Your task to perform on an android device: Turn on the flashlight Image 0: 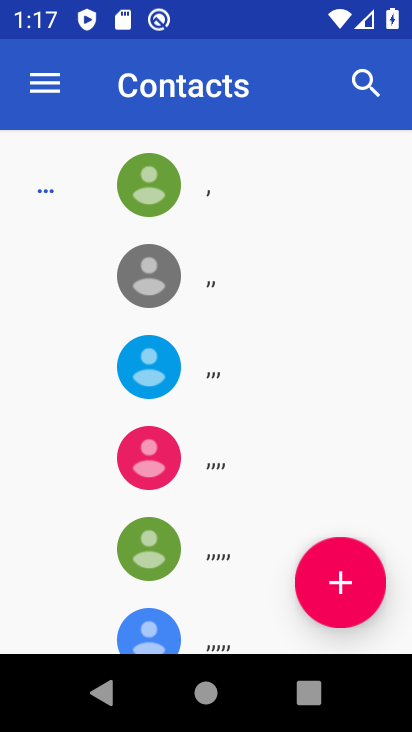
Step 0: press home button
Your task to perform on an android device: Turn on the flashlight Image 1: 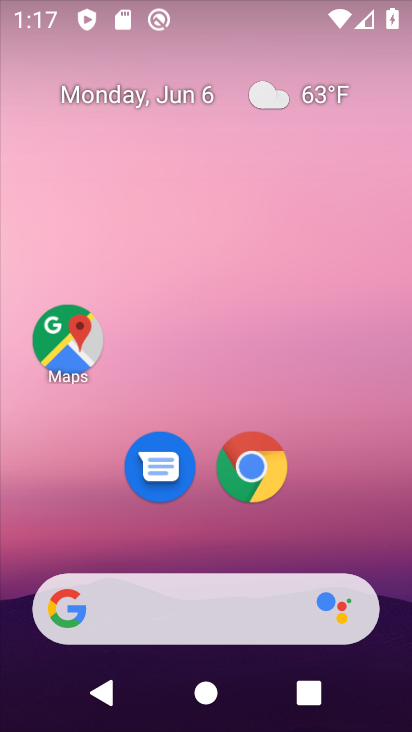
Step 1: drag from (398, 610) to (198, 121)
Your task to perform on an android device: Turn on the flashlight Image 2: 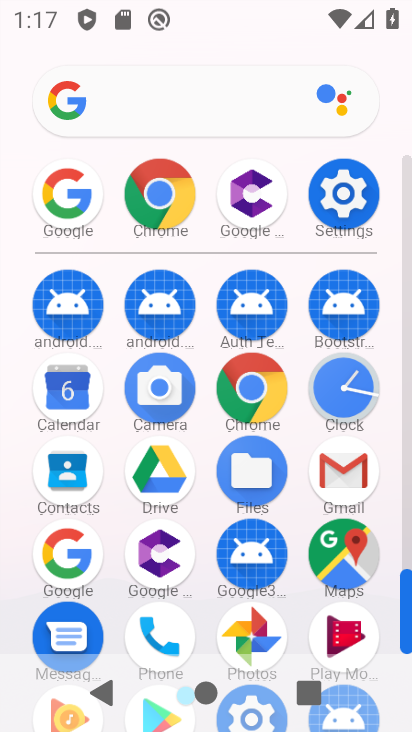
Step 2: click (329, 204)
Your task to perform on an android device: Turn on the flashlight Image 3: 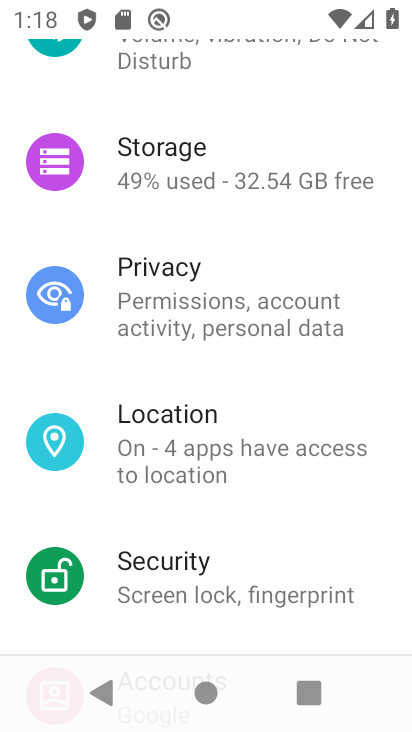
Step 3: task complete